Your task to perform on an android device: Find coffee shops on Maps Image 0: 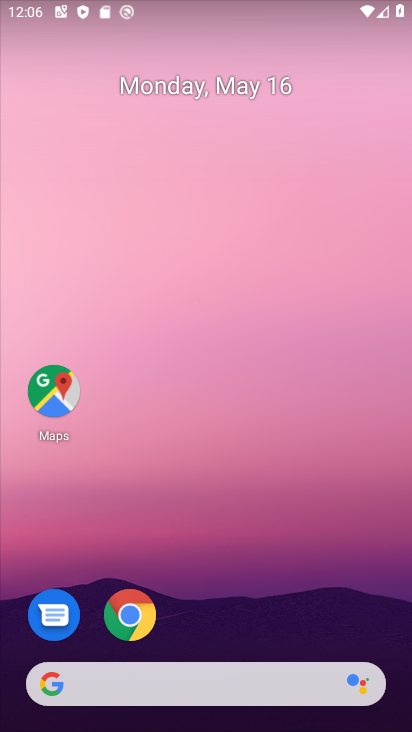
Step 0: drag from (296, 603) to (330, 0)
Your task to perform on an android device: Find coffee shops on Maps Image 1: 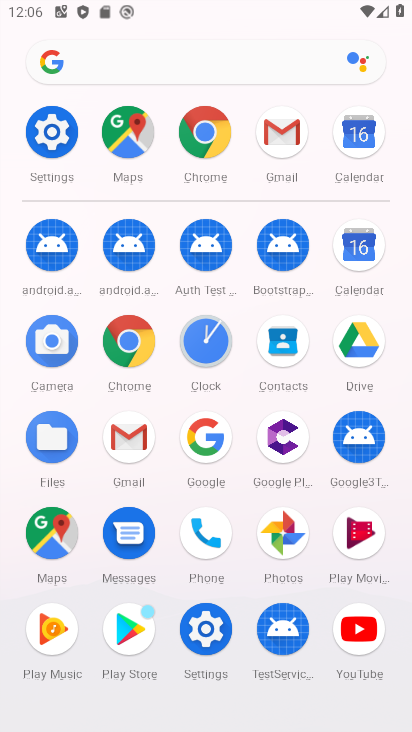
Step 1: click (37, 544)
Your task to perform on an android device: Find coffee shops on Maps Image 2: 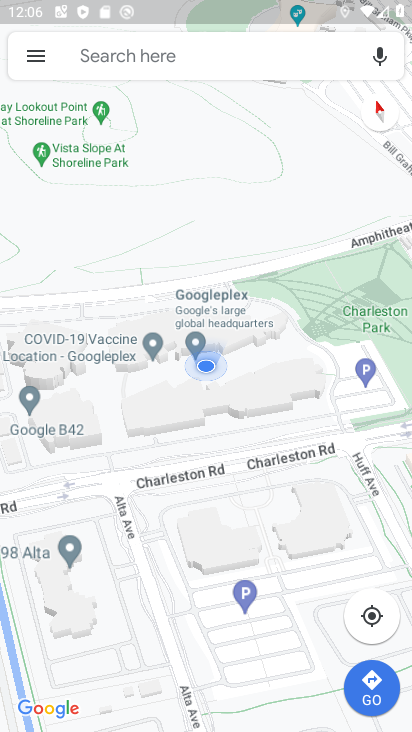
Step 2: click (206, 57)
Your task to perform on an android device: Find coffee shops on Maps Image 3: 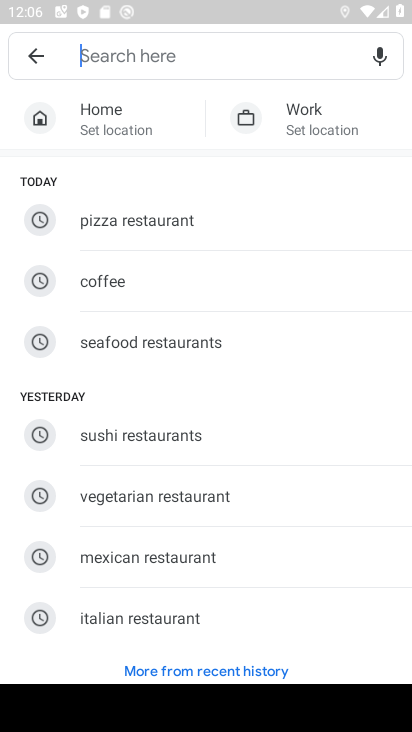
Step 3: drag from (264, 549) to (337, 186)
Your task to perform on an android device: Find coffee shops on Maps Image 4: 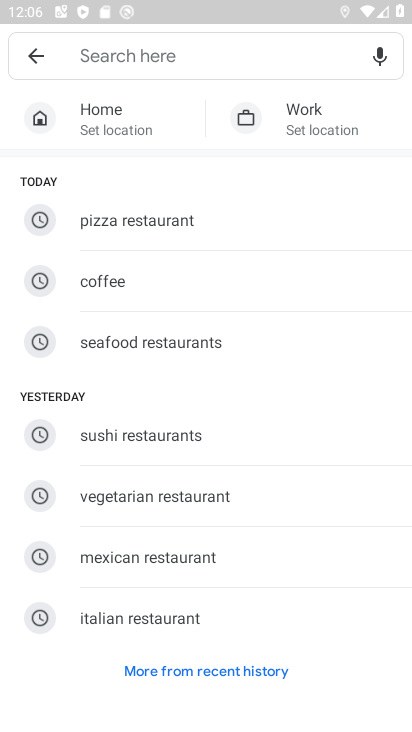
Step 4: click (272, 56)
Your task to perform on an android device: Find coffee shops on Maps Image 5: 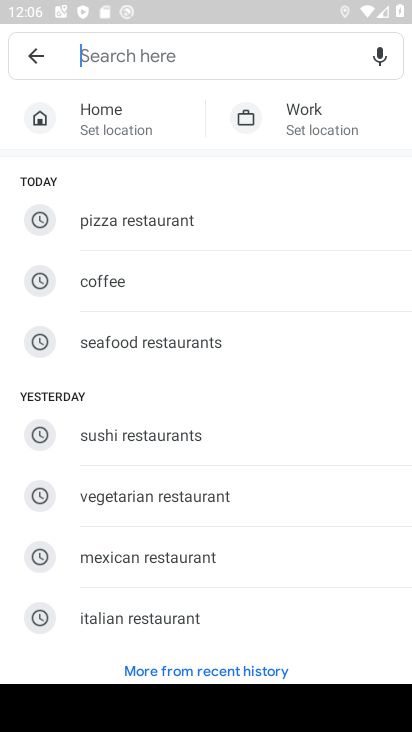
Step 5: type "coffee shops"
Your task to perform on an android device: Find coffee shops on Maps Image 6: 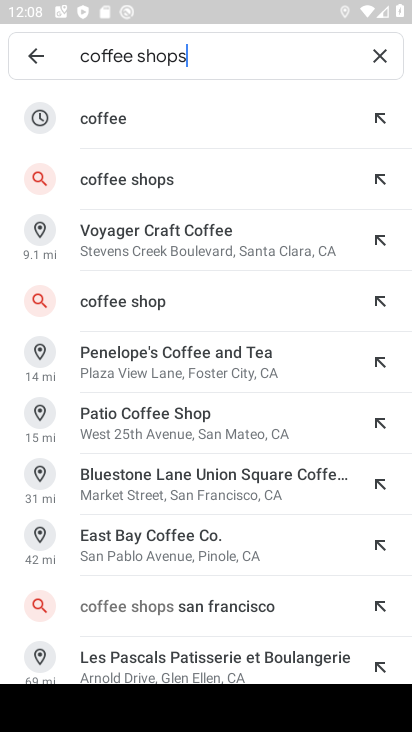
Step 6: click (224, 193)
Your task to perform on an android device: Find coffee shops on Maps Image 7: 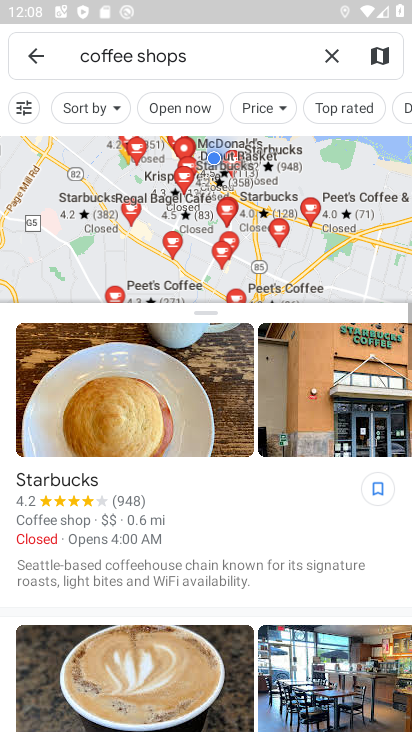
Step 7: task complete